Your task to perform on an android device: Open settings on Google Maps Image 0: 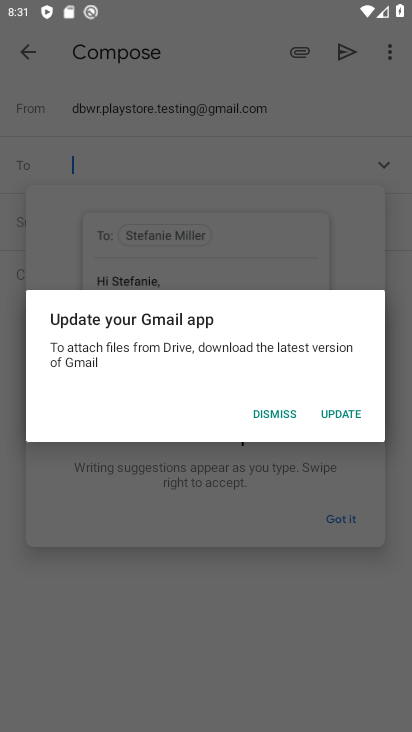
Step 0: press home button
Your task to perform on an android device: Open settings on Google Maps Image 1: 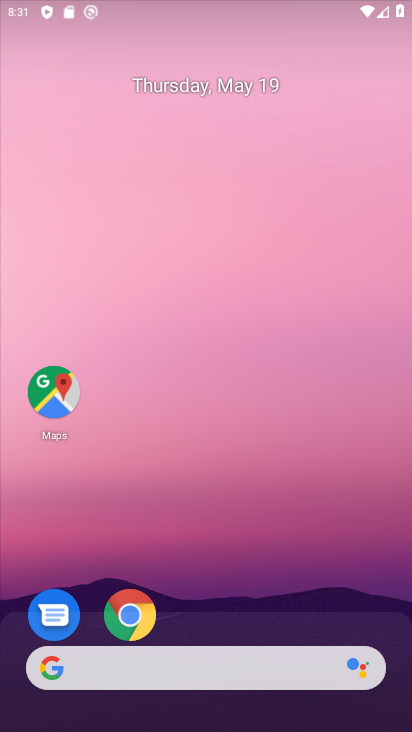
Step 1: drag from (329, 595) to (319, 487)
Your task to perform on an android device: Open settings on Google Maps Image 2: 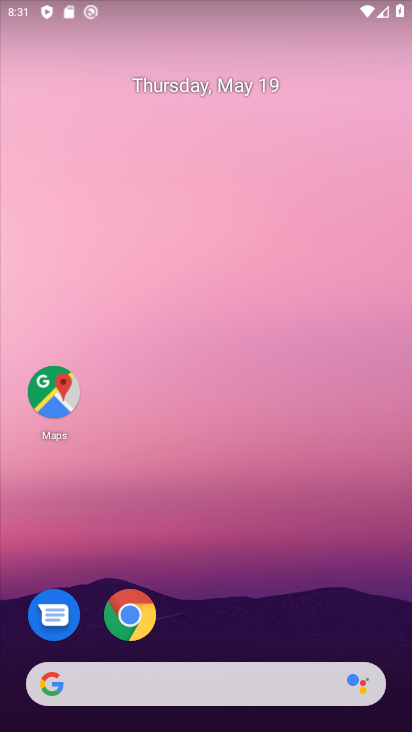
Step 2: click (54, 411)
Your task to perform on an android device: Open settings on Google Maps Image 3: 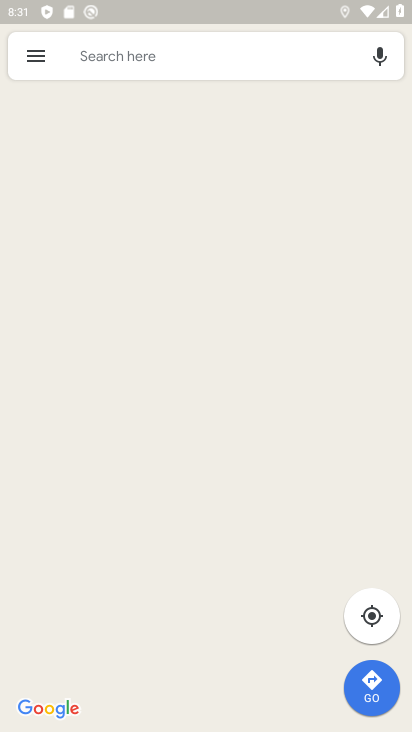
Step 3: click (31, 62)
Your task to perform on an android device: Open settings on Google Maps Image 4: 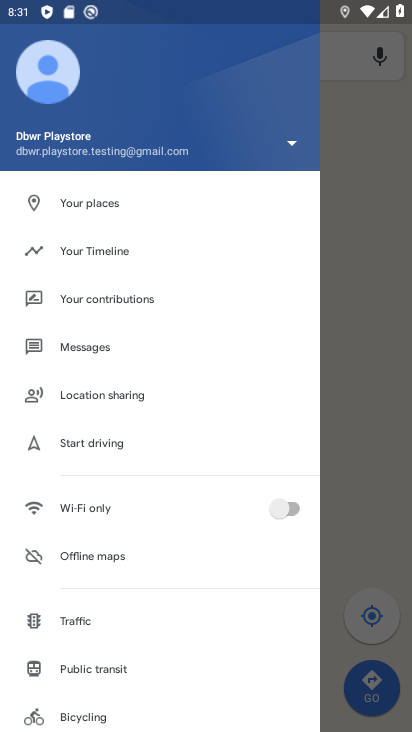
Step 4: drag from (91, 679) to (108, 46)
Your task to perform on an android device: Open settings on Google Maps Image 5: 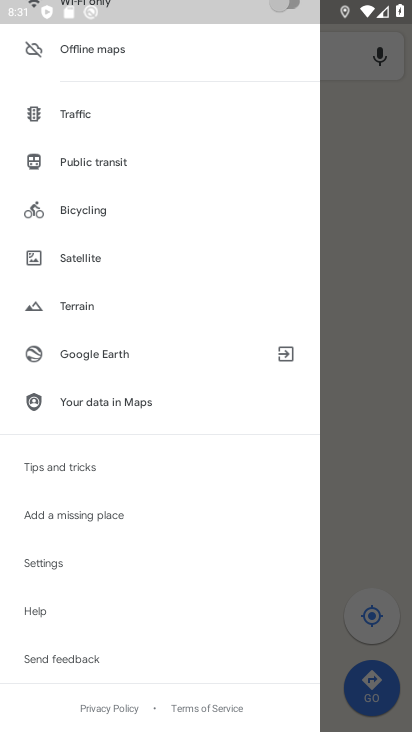
Step 5: click (36, 566)
Your task to perform on an android device: Open settings on Google Maps Image 6: 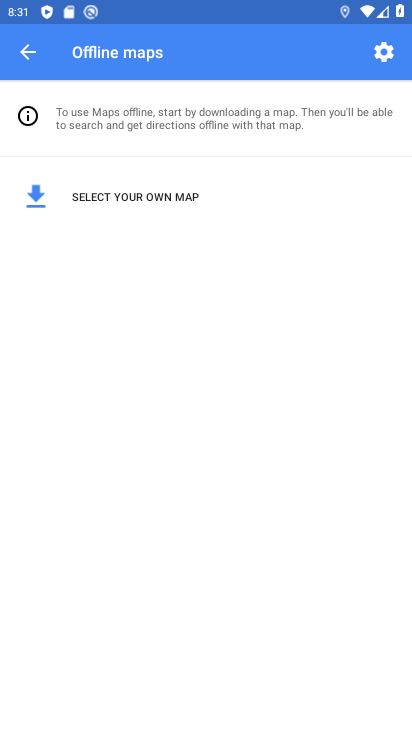
Step 6: click (34, 54)
Your task to perform on an android device: Open settings on Google Maps Image 7: 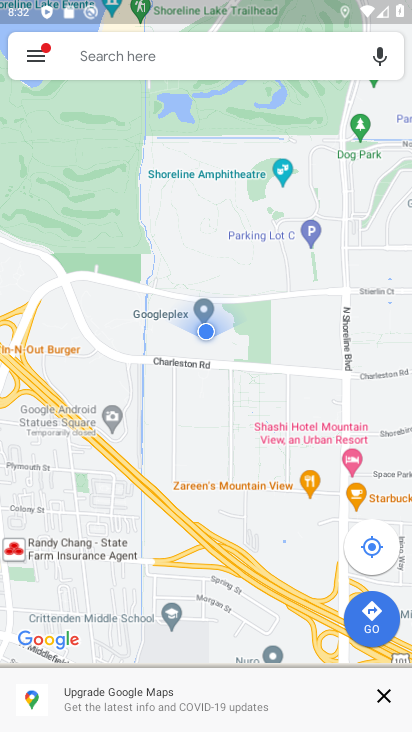
Step 7: click (40, 55)
Your task to perform on an android device: Open settings on Google Maps Image 8: 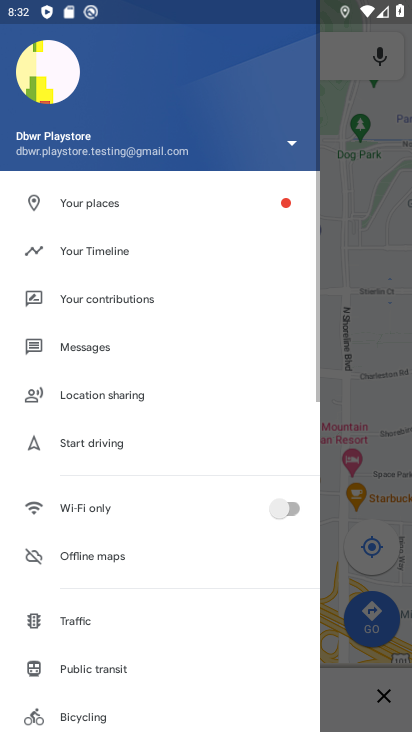
Step 8: drag from (158, 591) to (147, 102)
Your task to perform on an android device: Open settings on Google Maps Image 9: 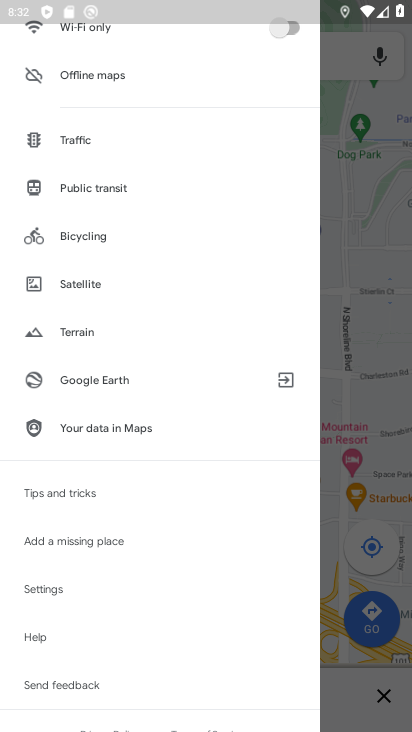
Step 9: click (42, 590)
Your task to perform on an android device: Open settings on Google Maps Image 10: 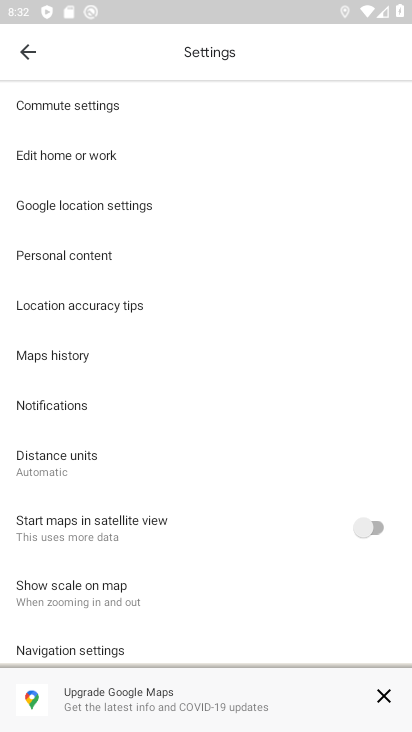
Step 10: task complete